Your task to perform on an android device: open app "HBO Max: Stream TV & Movies" Image 0: 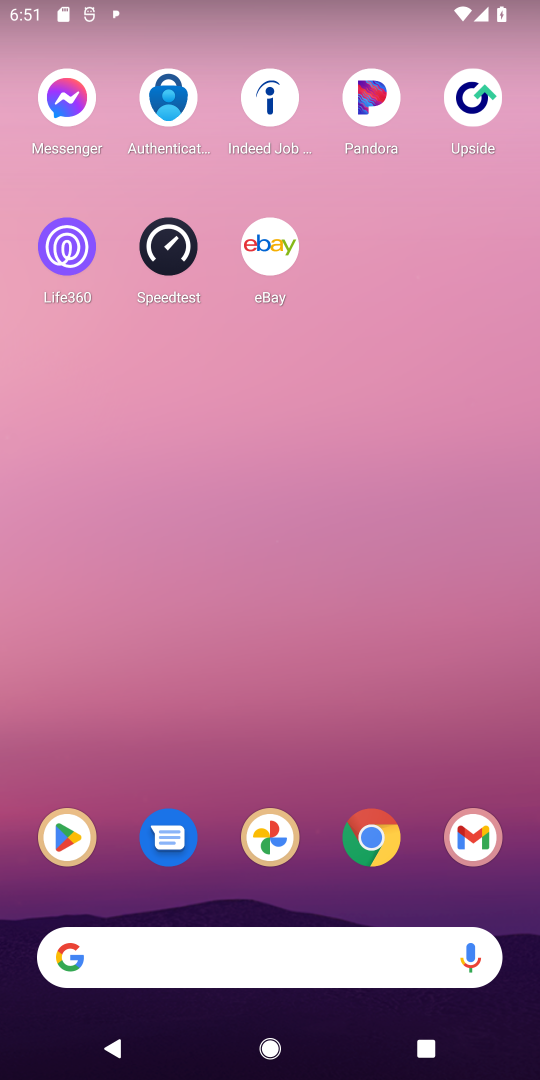
Step 0: click (59, 823)
Your task to perform on an android device: open app "HBO Max: Stream TV & Movies" Image 1: 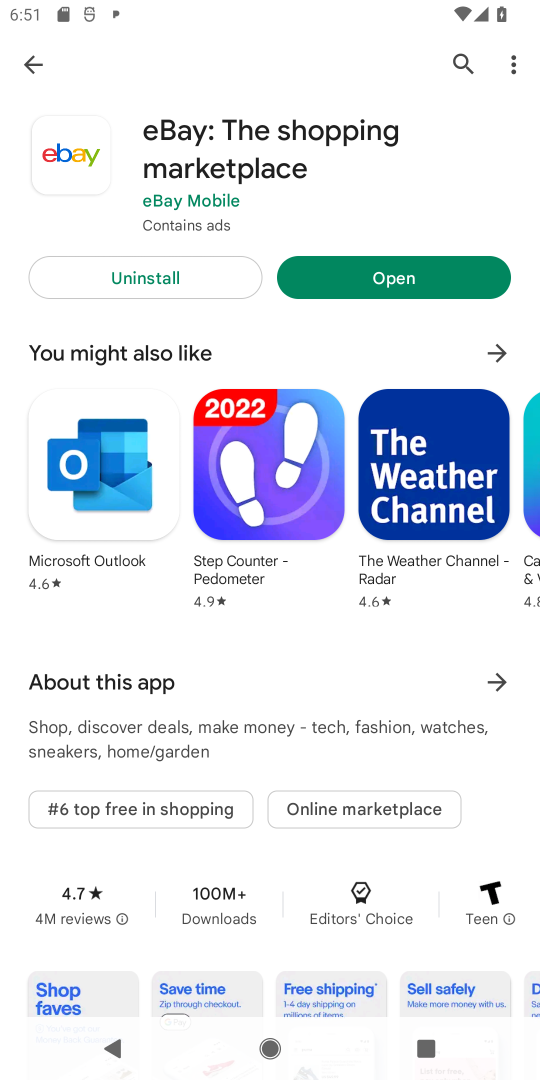
Step 1: click (461, 67)
Your task to perform on an android device: open app "HBO Max: Stream TV & Movies" Image 2: 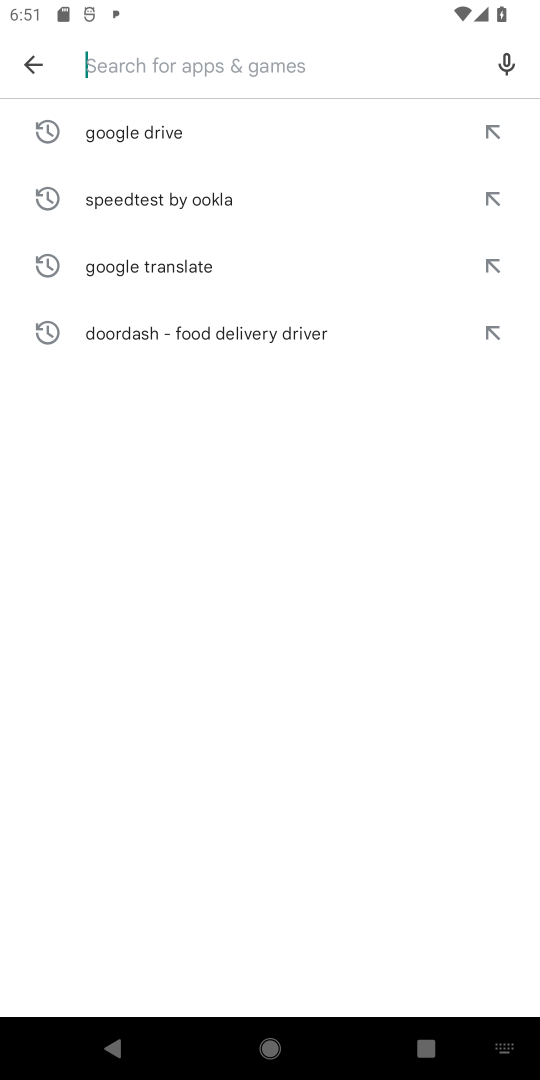
Step 2: type "HBO Max: Stream TV & Movies"
Your task to perform on an android device: open app "HBO Max: Stream TV & Movies" Image 3: 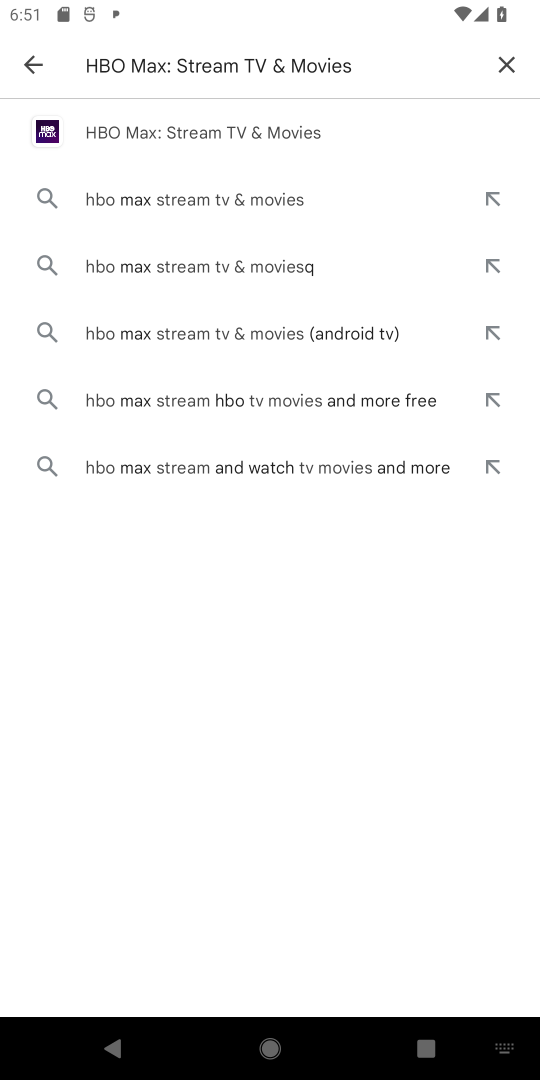
Step 3: click (177, 134)
Your task to perform on an android device: open app "HBO Max: Stream TV & Movies" Image 4: 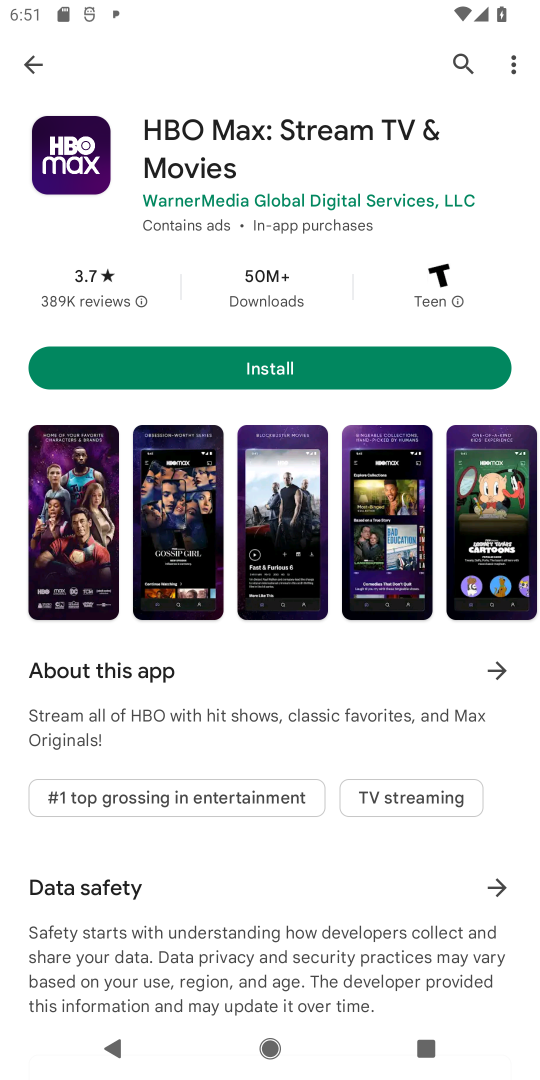
Step 4: task complete